Your task to perform on an android device: turn on data saver in the chrome app Image 0: 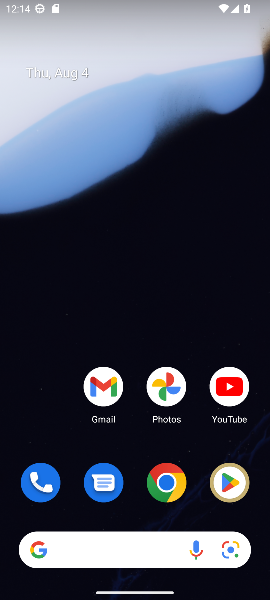
Step 0: click (160, 470)
Your task to perform on an android device: turn on data saver in the chrome app Image 1: 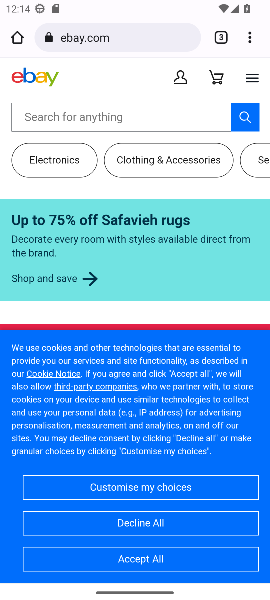
Step 1: click (256, 44)
Your task to perform on an android device: turn on data saver in the chrome app Image 2: 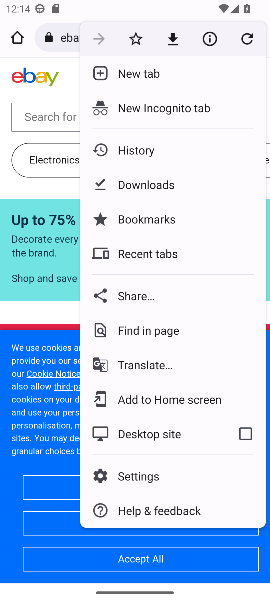
Step 2: click (148, 471)
Your task to perform on an android device: turn on data saver in the chrome app Image 3: 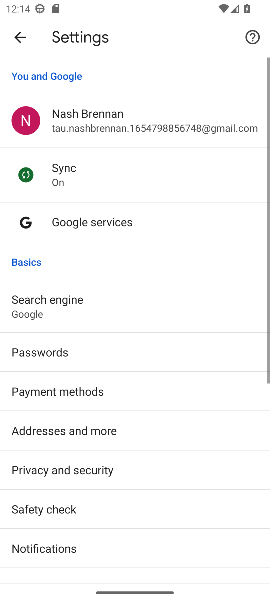
Step 3: drag from (127, 519) to (169, 273)
Your task to perform on an android device: turn on data saver in the chrome app Image 4: 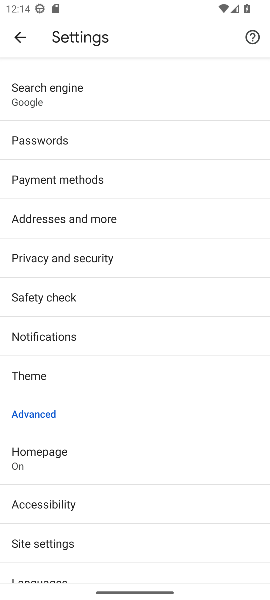
Step 4: drag from (131, 478) to (135, 306)
Your task to perform on an android device: turn on data saver in the chrome app Image 5: 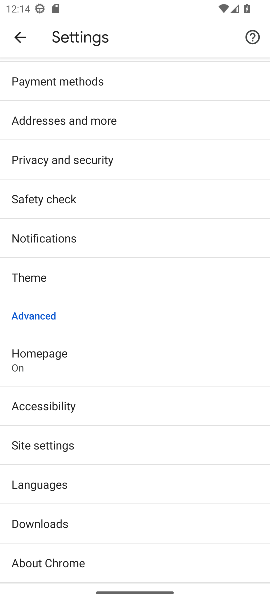
Step 5: drag from (83, 547) to (97, 389)
Your task to perform on an android device: turn on data saver in the chrome app Image 6: 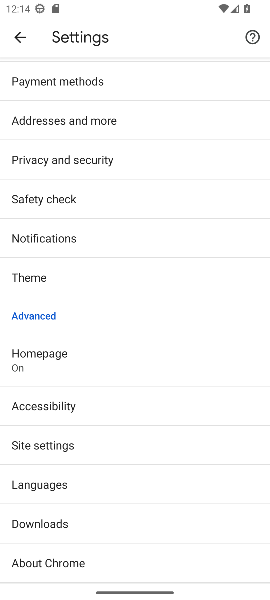
Step 6: click (70, 420)
Your task to perform on an android device: turn on data saver in the chrome app Image 7: 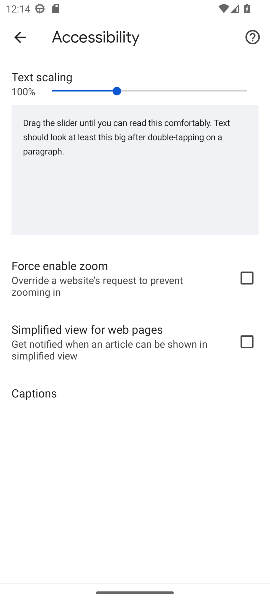
Step 7: task complete